Your task to perform on an android device: open wifi settings Image 0: 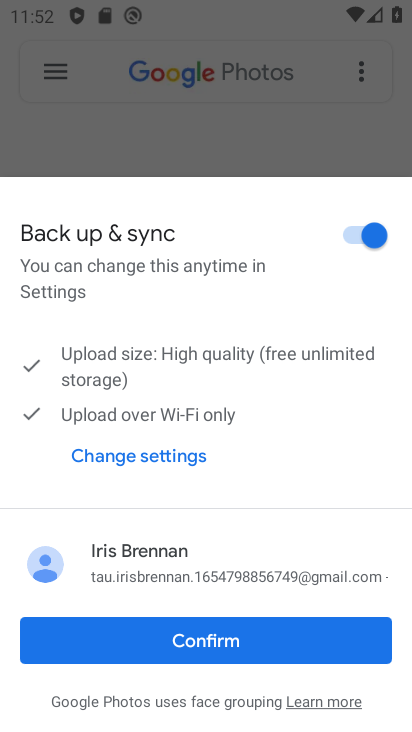
Step 0: press home button
Your task to perform on an android device: open wifi settings Image 1: 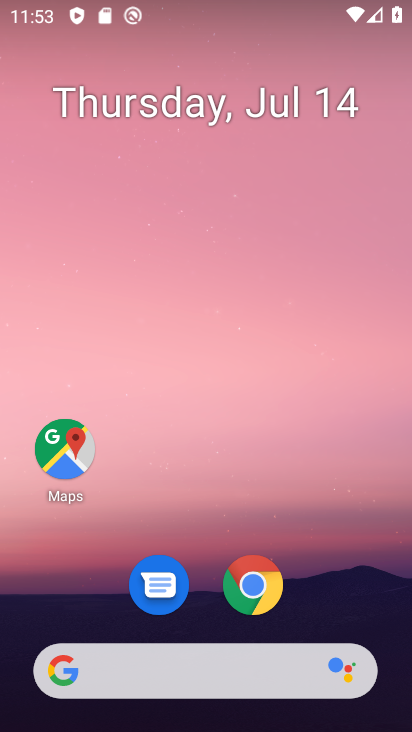
Step 1: drag from (299, 510) to (314, 3)
Your task to perform on an android device: open wifi settings Image 2: 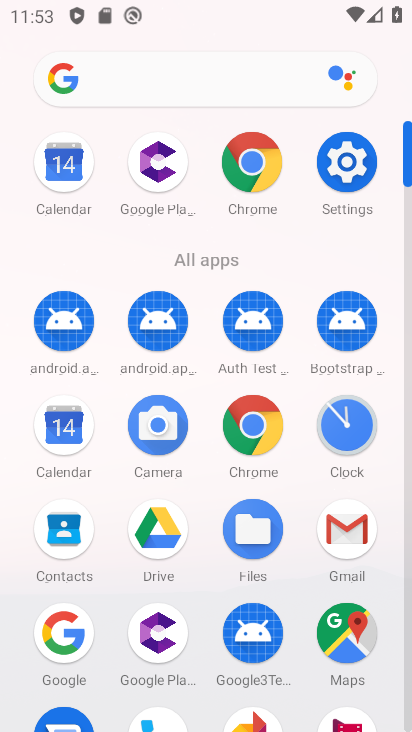
Step 2: click (348, 168)
Your task to perform on an android device: open wifi settings Image 3: 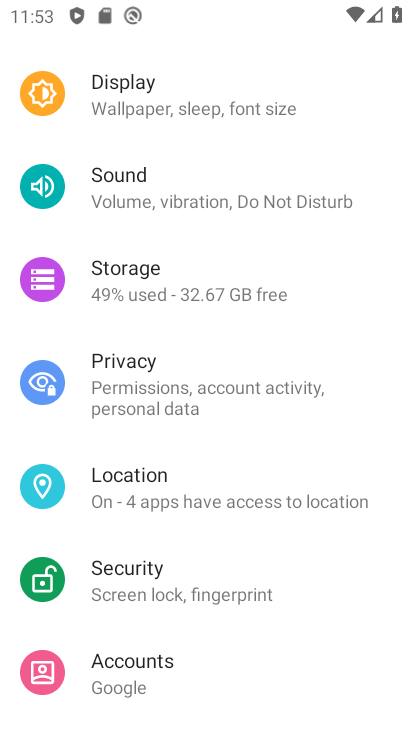
Step 3: drag from (201, 171) to (191, 602)
Your task to perform on an android device: open wifi settings Image 4: 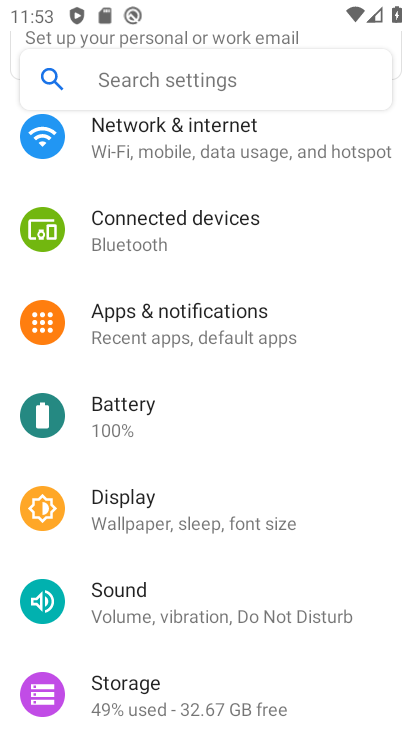
Step 4: click (206, 137)
Your task to perform on an android device: open wifi settings Image 5: 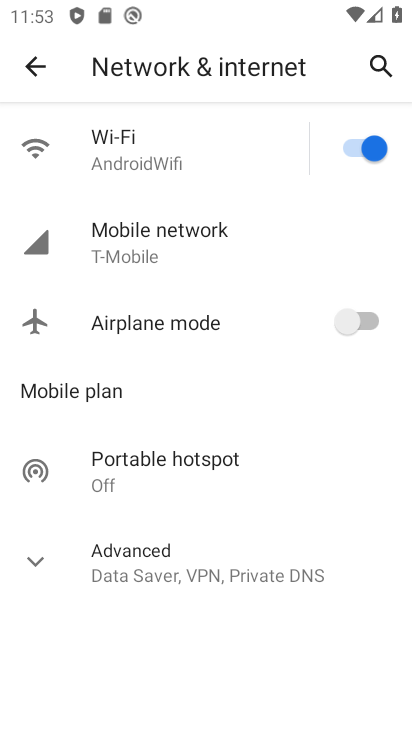
Step 5: click (163, 150)
Your task to perform on an android device: open wifi settings Image 6: 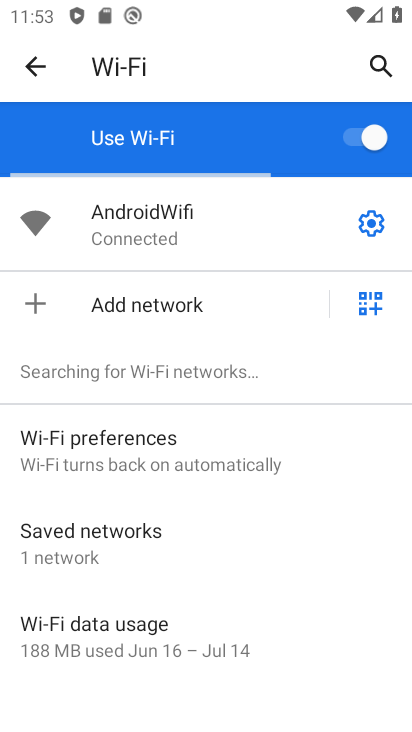
Step 6: task complete